Your task to perform on an android device: turn smart compose on in the gmail app Image 0: 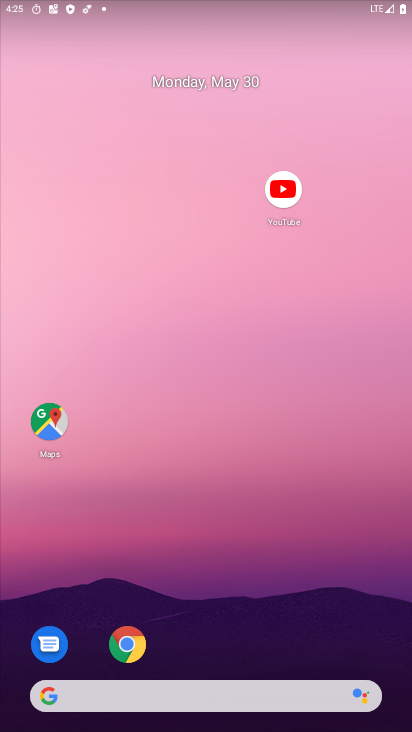
Step 0: drag from (193, 638) to (193, 227)
Your task to perform on an android device: turn smart compose on in the gmail app Image 1: 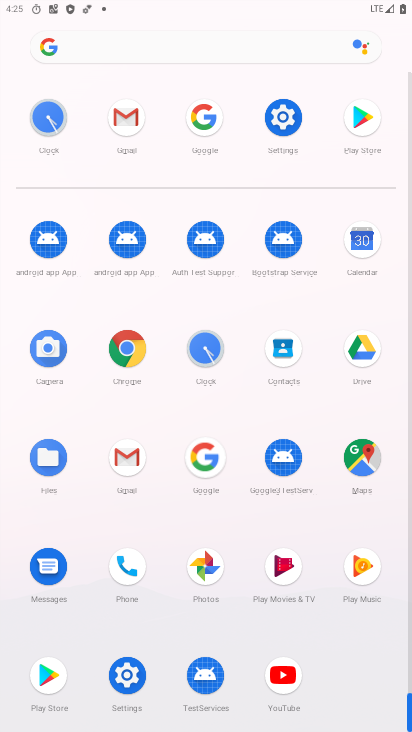
Step 1: click (142, 114)
Your task to perform on an android device: turn smart compose on in the gmail app Image 2: 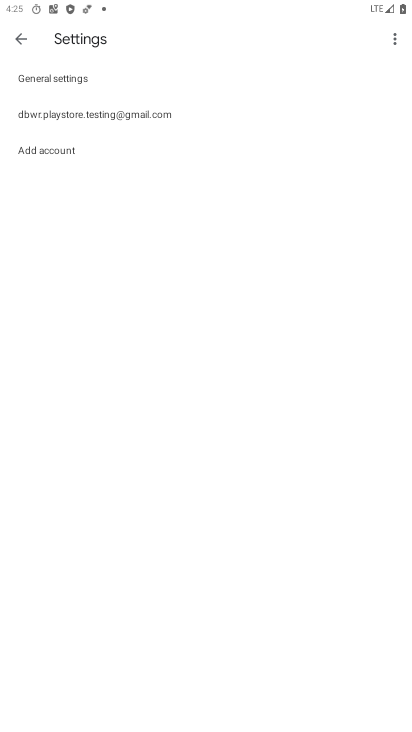
Step 2: click (142, 114)
Your task to perform on an android device: turn smart compose on in the gmail app Image 3: 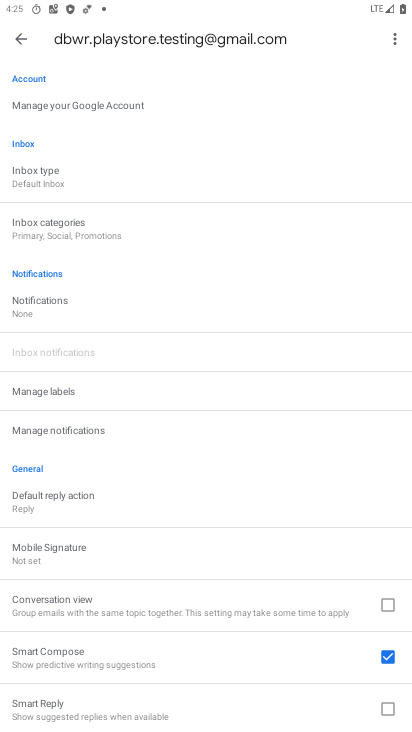
Step 3: task complete